Your task to perform on an android device: open chrome privacy settings Image 0: 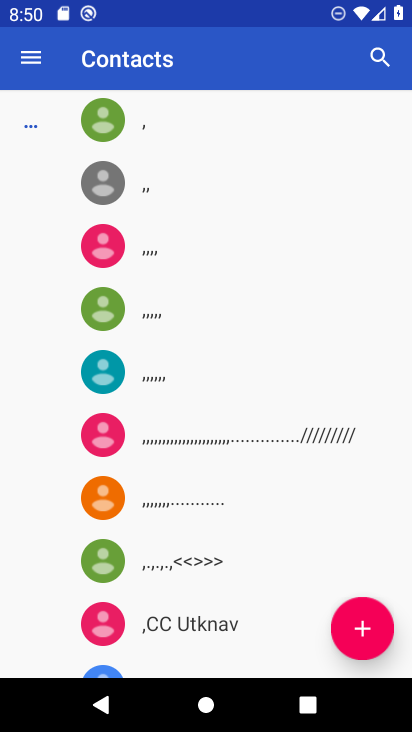
Step 0: press home button
Your task to perform on an android device: open chrome privacy settings Image 1: 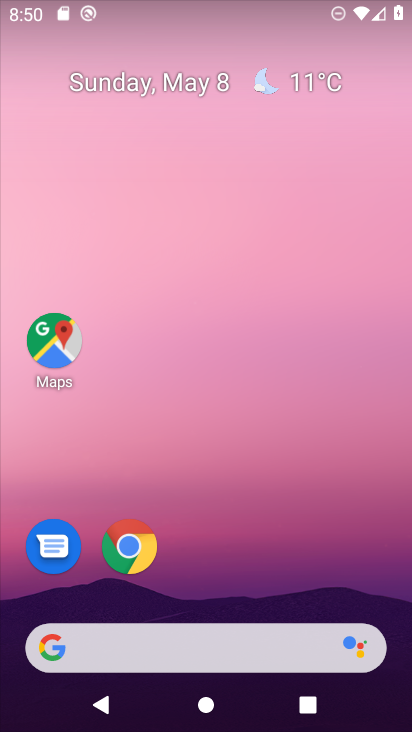
Step 1: click (130, 553)
Your task to perform on an android device: open chrome privacy settings Image 2: 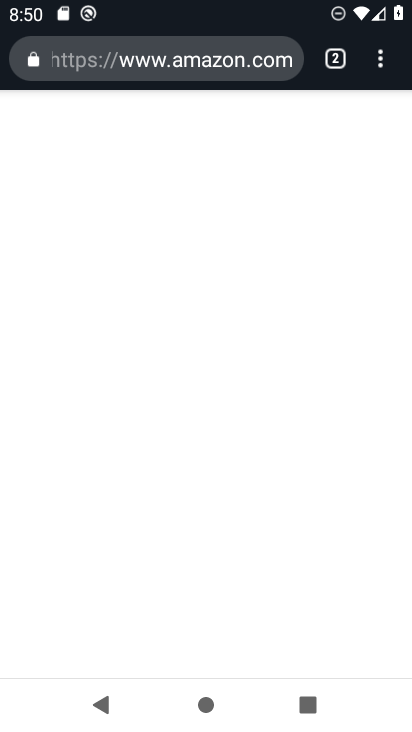
Step 2: click (383, 60)
Your task to perform on an android device: open chrome privacy settings Image 3: 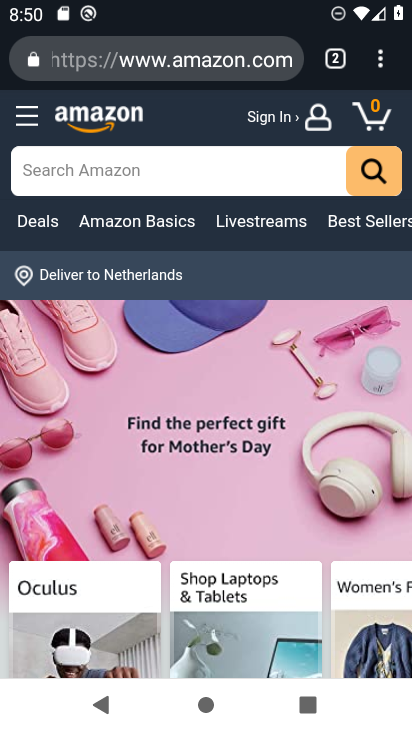
Step 3: click (383, 62)
Your task to perform on an android device: open chrome privacy settings Image 4: 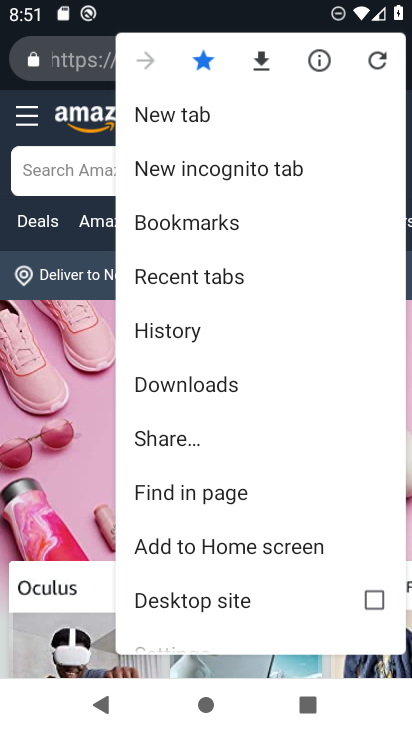
Step 4: drag from (257, 415) to (280, 176)
Your task to perform on an android device: open chrome privacy settings Image 5: 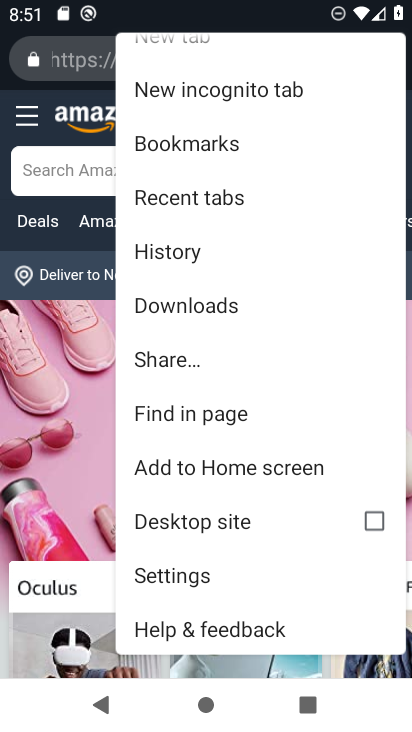
Step 5: click (178, 561)
Your task to perform on an android device: open chrome privacy settings Image 6: 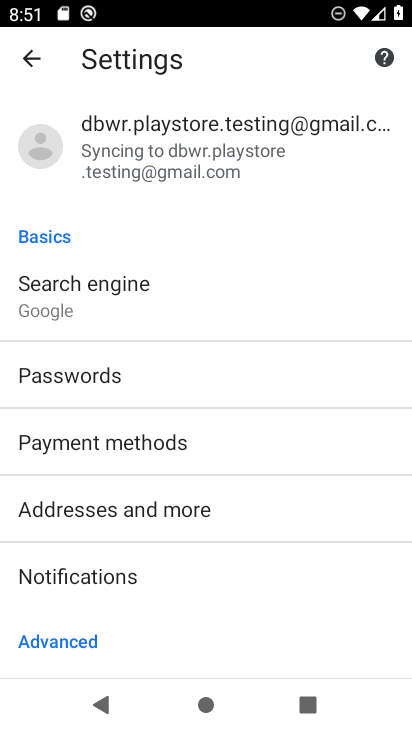
Step 6: drag from (200, 563) to (222, 367)
Your task to perform on an android device: open chrome privacy settings Image 7: 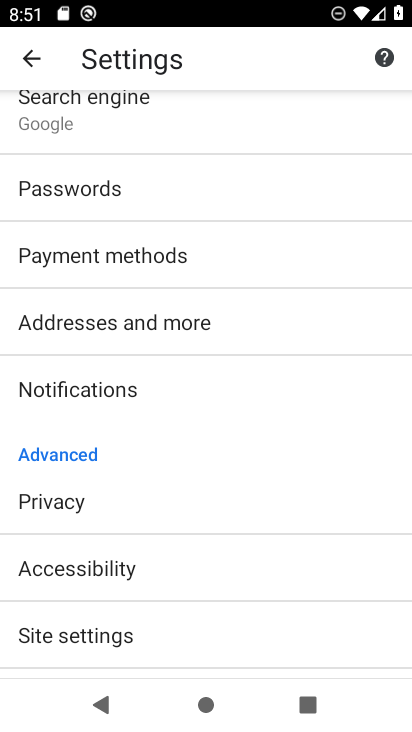
Step 7: click (64, 497)
Your task to perform on an android device: open chrome privacy settings Image 8: 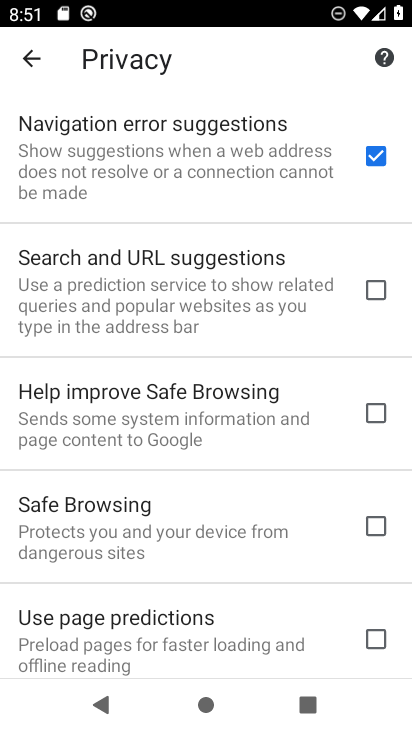
Step 8: task complete